Your task to perform on an android device: turn vacation reply on in the gmail app Image 0: 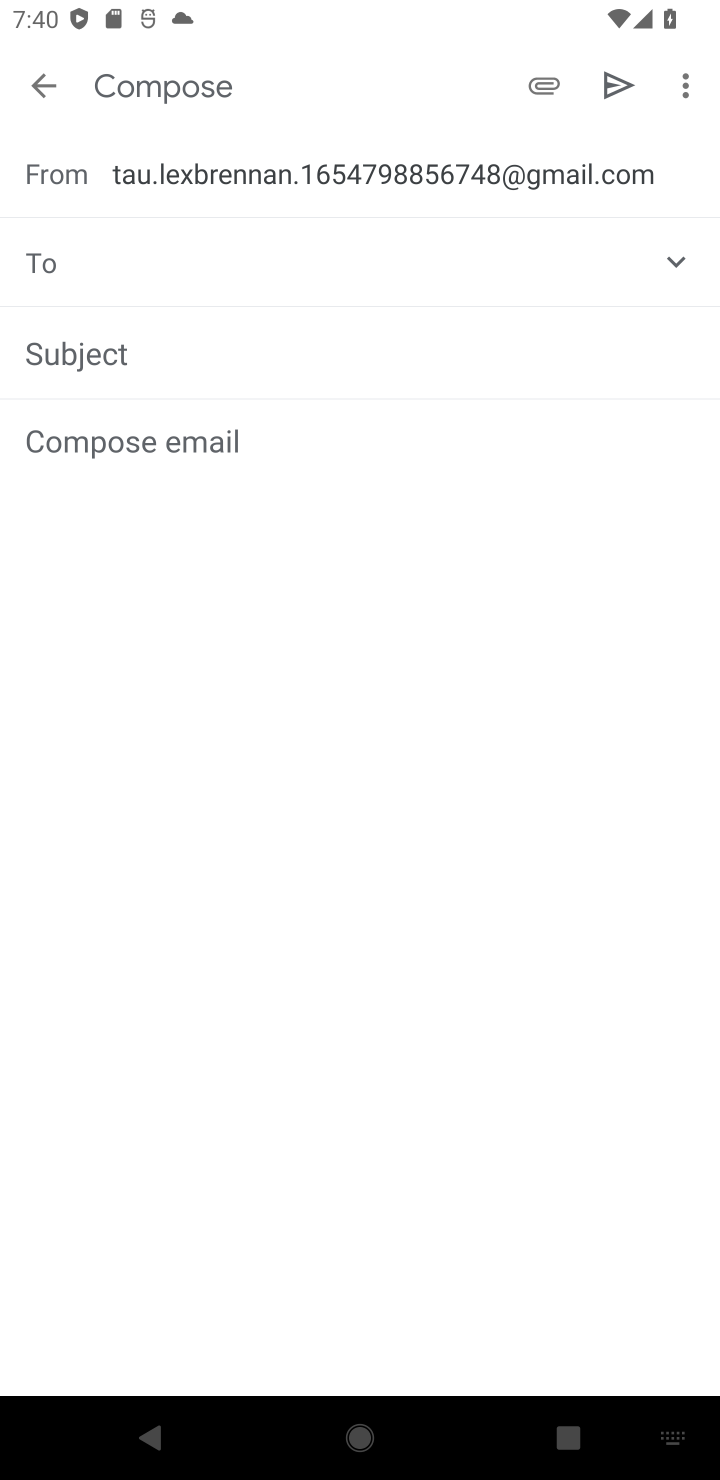
Step 0: task complete